Your task to perform on an android device: turn on the 12-hour format for clock Image 0: 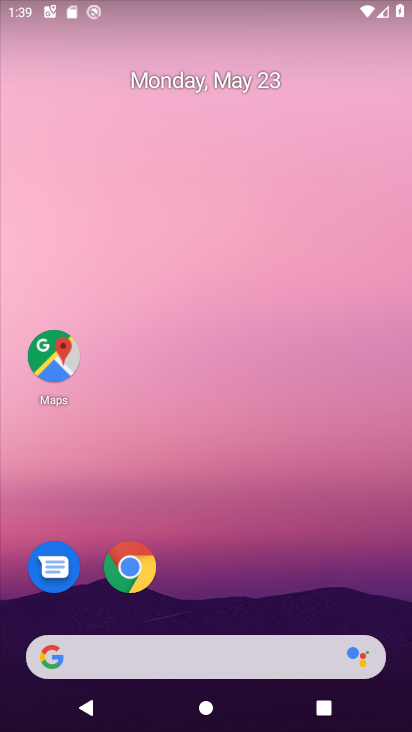
Step 0: drag from (227, 600) to (185, 134)
Your task to perform on an android device: turn on the 12-hour format for clock Image 1: 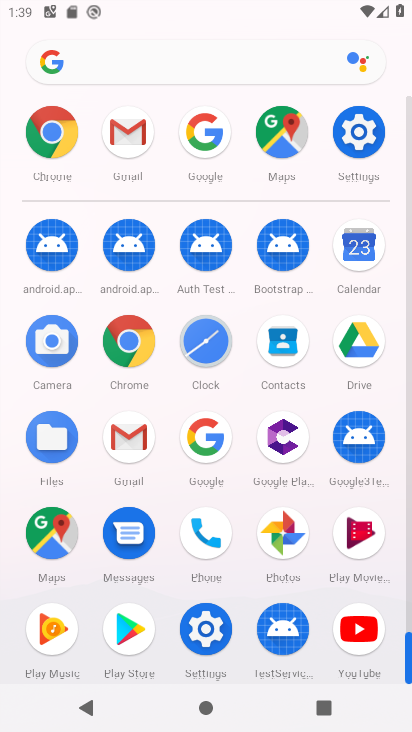
Step 1: click (202, 357)
Your task to perform on an android device: turn on the 12-hour format for clock Image 2: 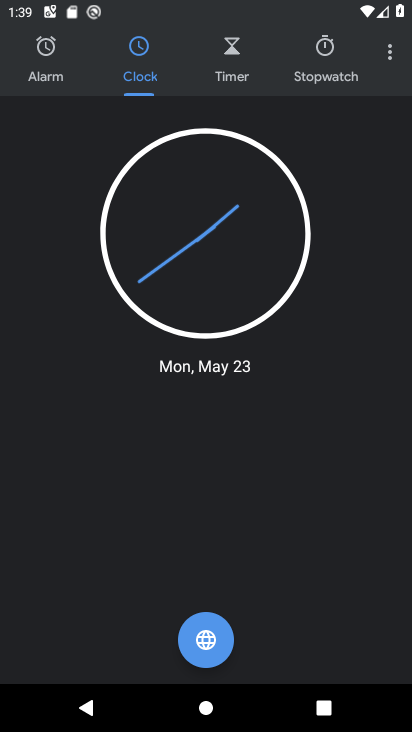
Step 2: click (397, 63)
Your task to perform on an android device: turn on the 12-hour format for clock Image 3: 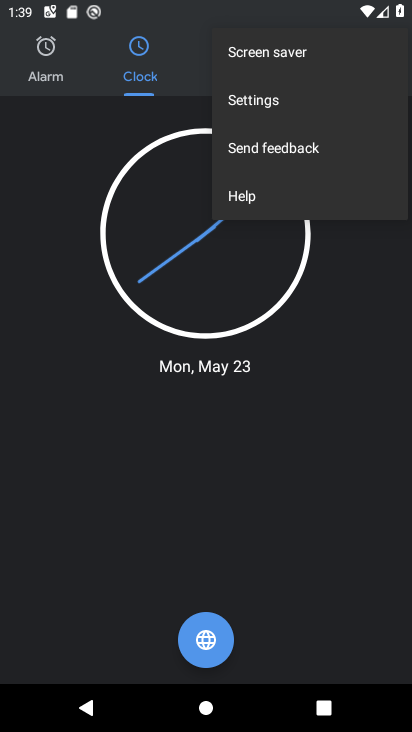
Step 3: click (280, 106)
Your task to perform on an android device: turn on the 12-hour format for clock Image 4: 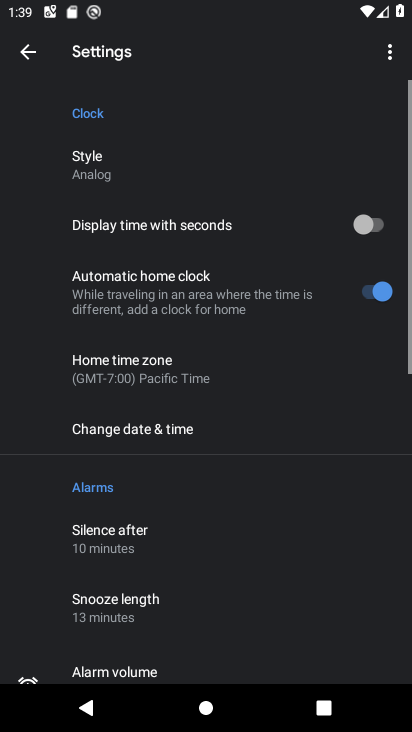
Step 4: click (201, 442)
Your task to perform on an android device: turn on the 12-hour format for clock Image 5: 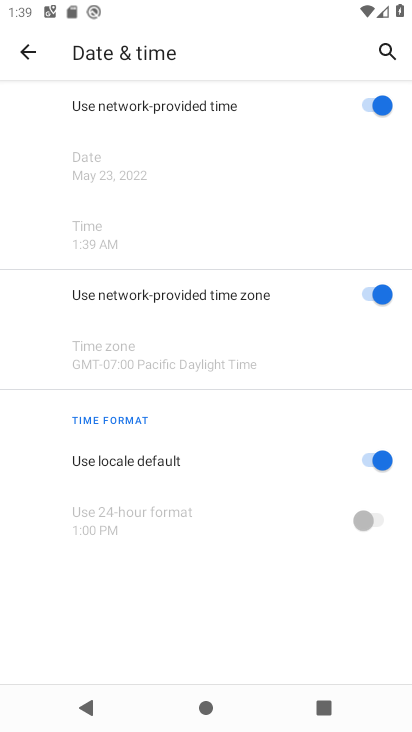
Step 5: task complete